Your task to perform on an android device: turn pop-ups off in chrome Image 0: 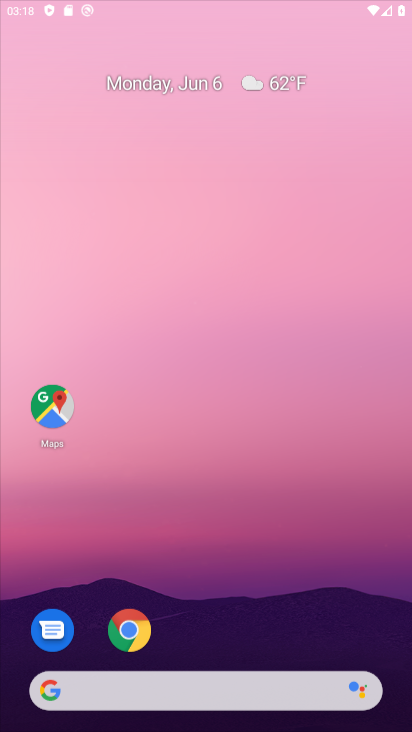
Step 0: drag from (258, 600) to (258, 547)
Your task to perform on an android device: turn pop-ups off in chrome Image 1: 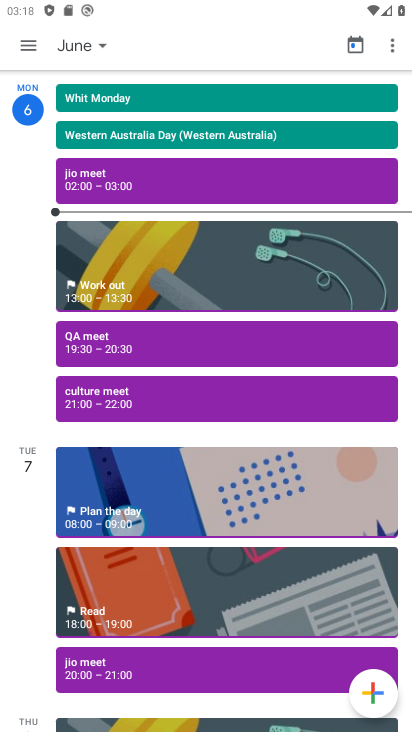
Step 1: press home button
Your task to perform on an android device: turn pop-ups off in chrome Image 2: 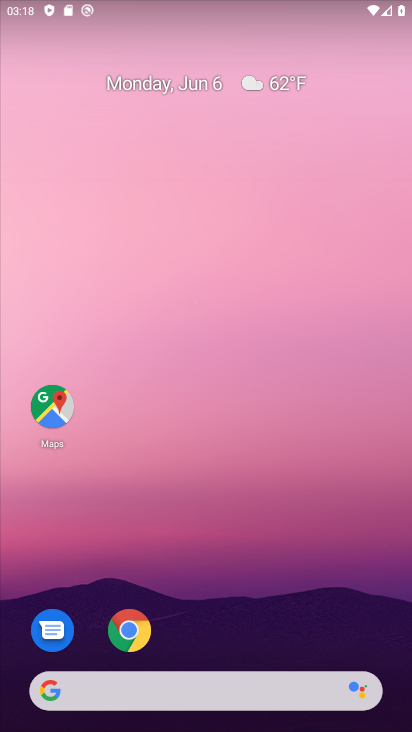
Step 2: click (135, 605)
Your task to perform on an android device: turn pop-ups off in chrome Image 3: 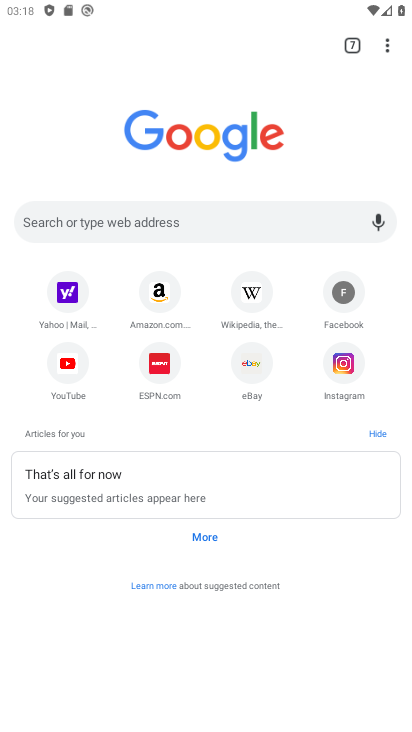
Step 3: drag from (384, 51) to (228, 374)
Your task to perform on an android device: turn pop-ups off in chrome Image 4: 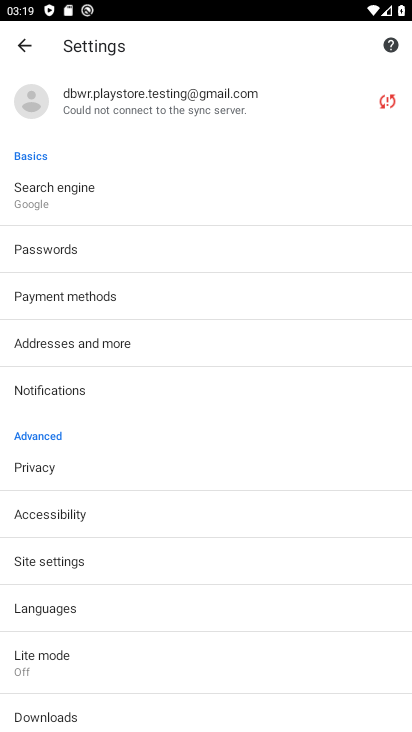
Step 4: click (89, 553)
Your task to perform on an android device: turn pop-ups off in chrome Image 5: 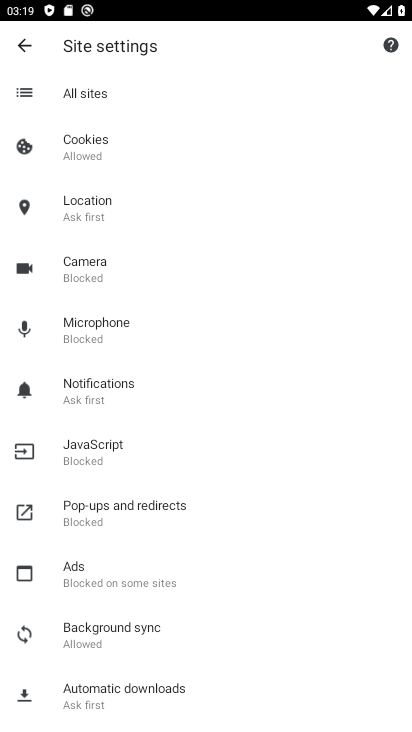
Step 5: click (96, 532)
Your task to perform on an android device: turn pop-ups off in chrome Image 6: 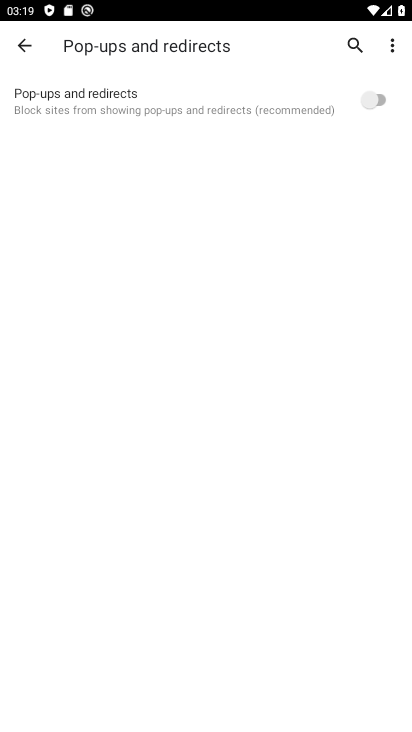
Step 6: task complete